Your task to perform on an android device: clear all cookies in the chrome app Image 0: 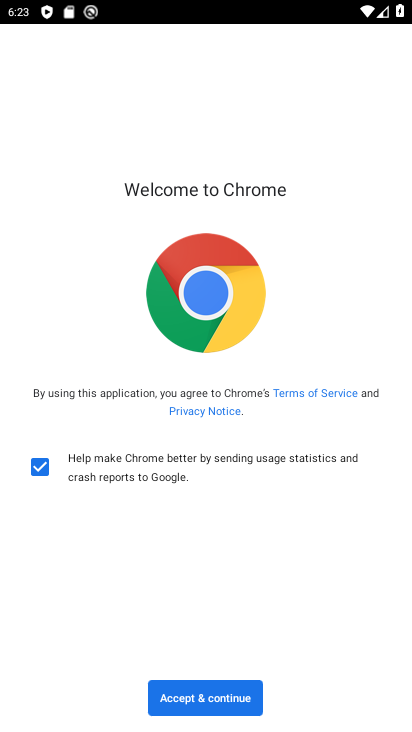
Step 0: press home button
Your task to perform on an android device: clear all cookies in the chrome app Image 1: 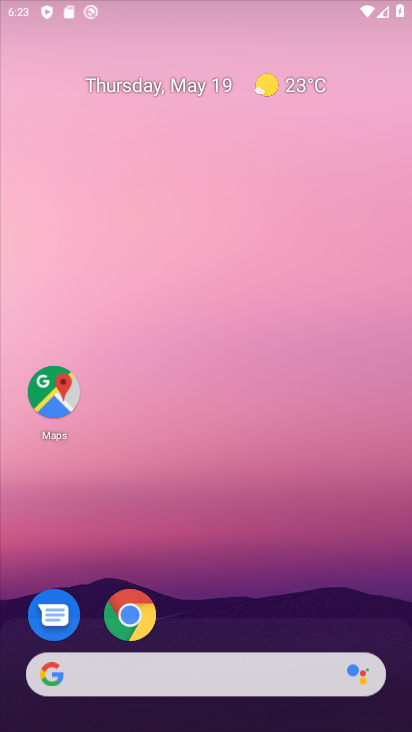
Step 1: drag from (401, 661) to (295, 66)
Your task to perform on an android device: clear all cookies in the chrome app Image 2: 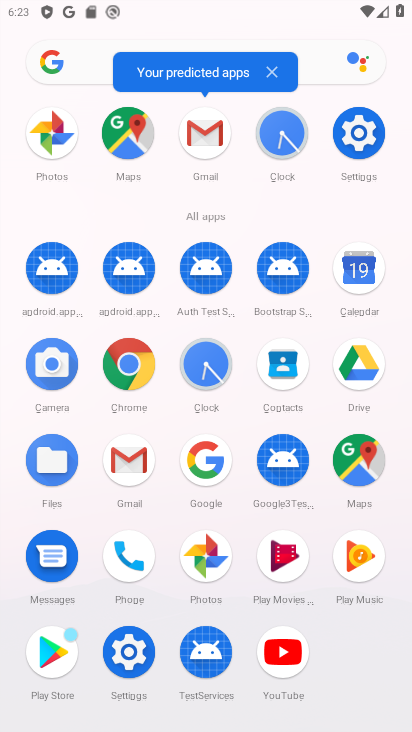
Step 2: click (129, 365)
Your task to perform on an android device: clear all cookies in the chrome app Image 3: 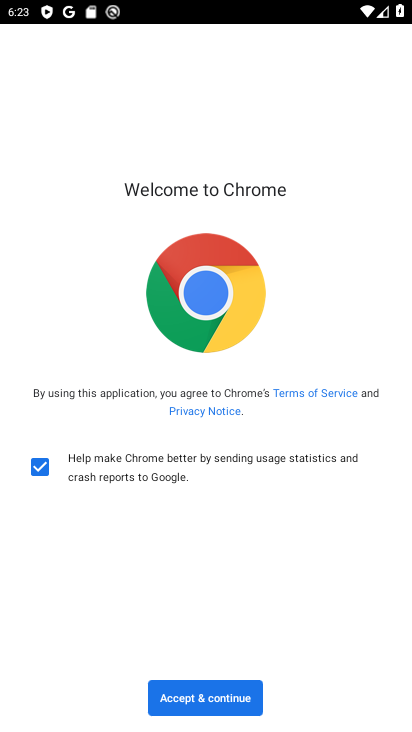
Step 3: click (255, 689)
Your task to perform on an android device: clear all cookies in the chrome app Image 4: 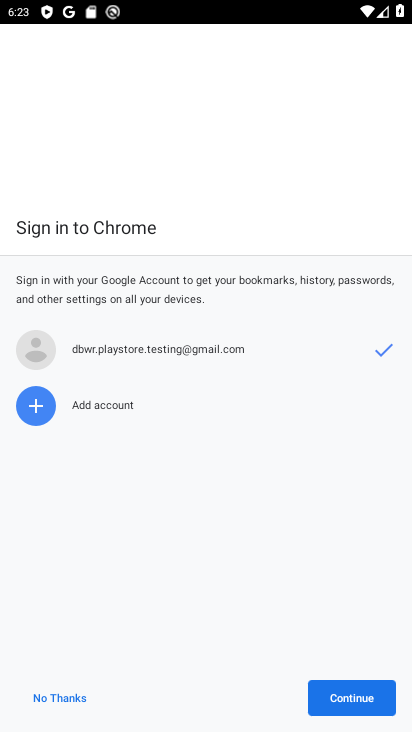
Step 4: click (327, 716)
Your task to perform on an android device: clear all cookies in the chrome app Image 5: 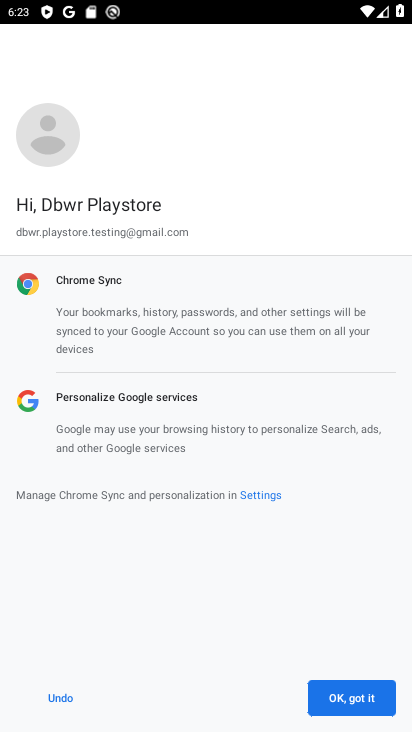
Step 5: click (350, 696)
Your task to perform on an android device: clear all cookies in the chrome app Image 6: 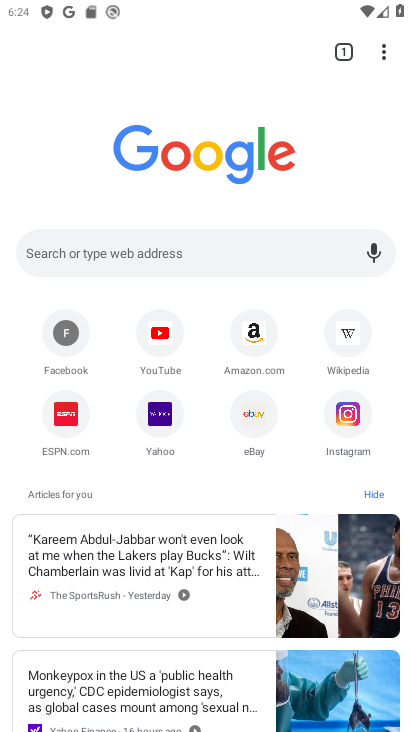
Step 6: click (379, 50)
Your task to perform on an android device: clear all cookies in the chrome app Image 7: 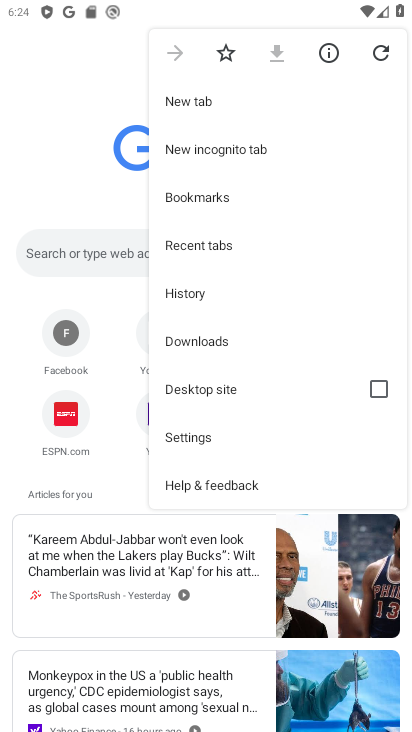
Step 7: click (200, 291)
Your task to perform on an android device: clear all cookies in the chrome app Image 8: 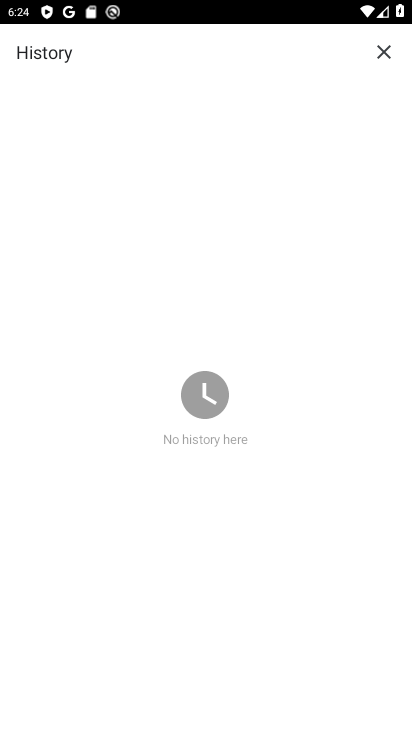
Step 8: task complete